Your task to perform on an android device: Play the last video I watched on Youtube Image 0: 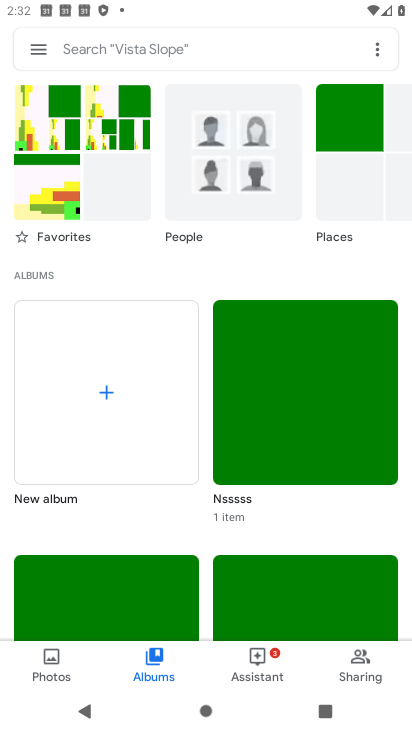
Step 0: press home button
Your task to perform on an android device: Play the last video I watched on Youtube Image 1: 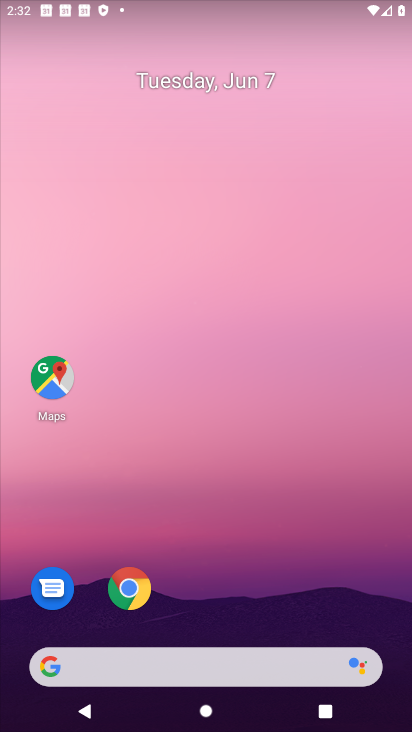
Step 1: drag from (292, 605) to (228, 129)
Your task to perform on an android device: Play the last video I watched on Youtube Image 2: 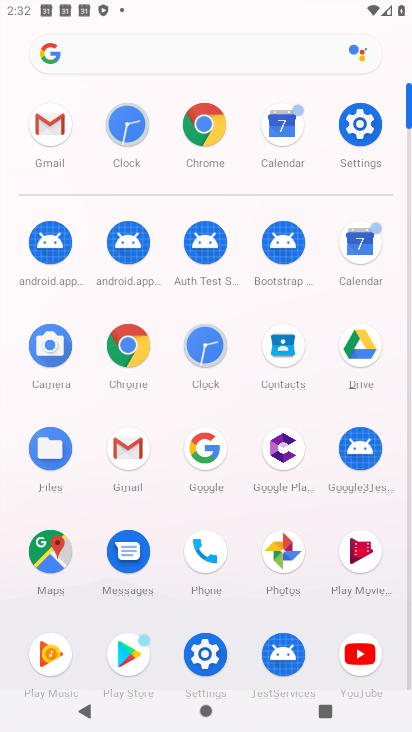
Step 2: click (370, 665)
Your task to perform on an android device: Play the last video I watched on Youtube Image 3: 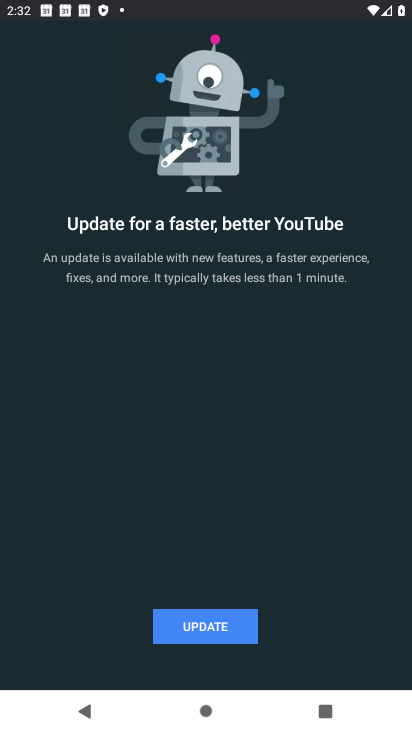
Step 3: click (214, 635)
Your task to perform on an android device: Play the last video I watched on Youtube Image 4: 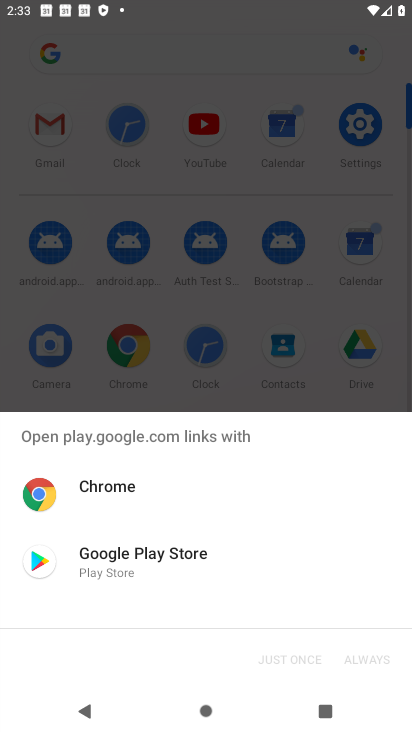
Step 4: click (179, 586)
Your task to perform on an android device: Play the last video I watched on Youtube Image 5: 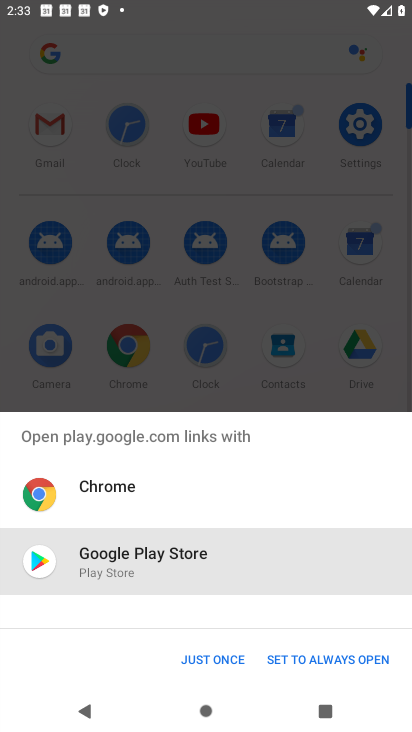
Step 5: click (209, 647)
Your task to perform on an android device: Play the last video I watched on Youtube Image 6: 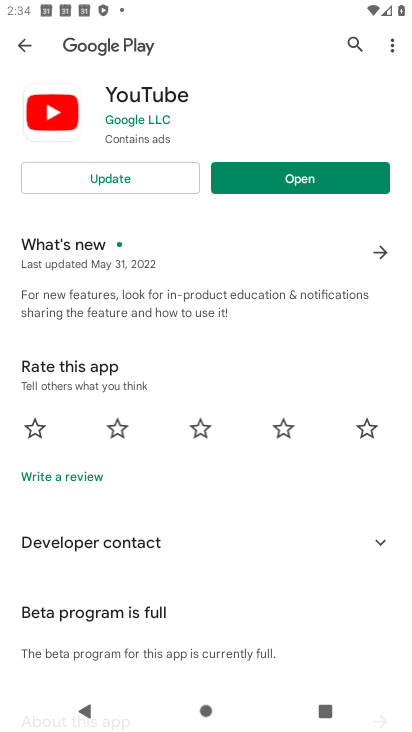
Step 6: click (107, 187)
Your task to perform on an android device: Play the last video I watched on Youtube Image 7: 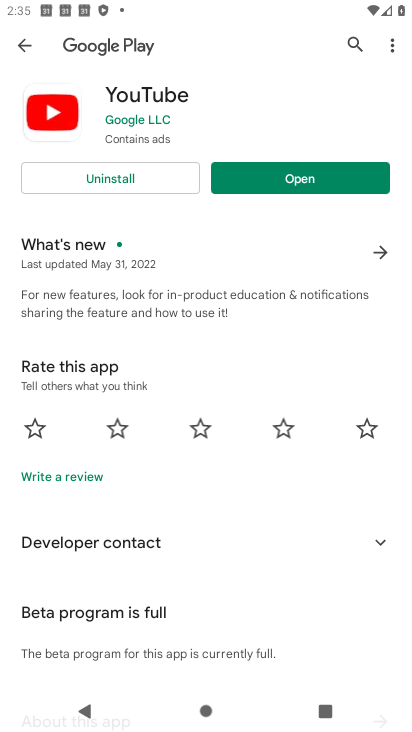
Step 7: click (262, 167)
Your task to perform on an android device: Play the last video I watched on Youtube Image 8: 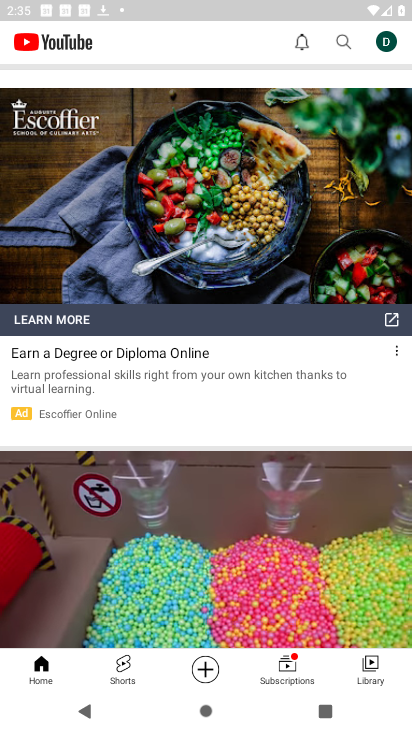
Step 8: click (380, 667)
Your task to perform on an android device: Play the last video I watched on Youtube Image 9: 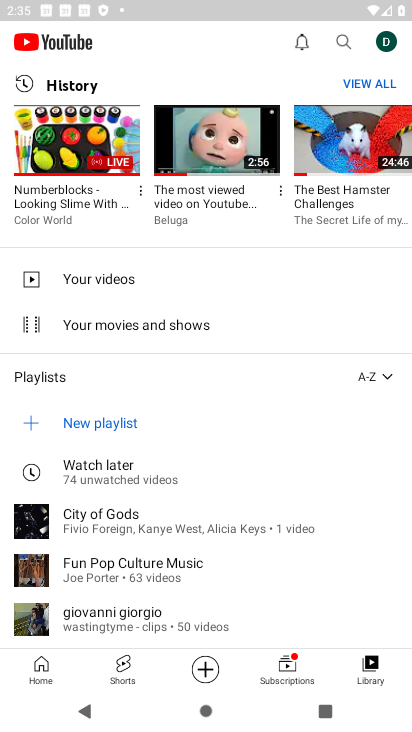
Step 9: click (93, 186)
Your task to perform on an android device: Play the last video I watched on Youtube Image 10: 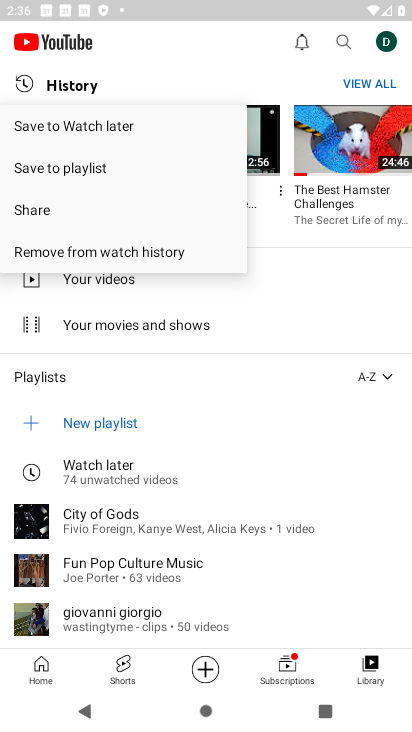
Step 10: task complete